Your task to perform on an android device: Do I have any events this weekend? Image 0: 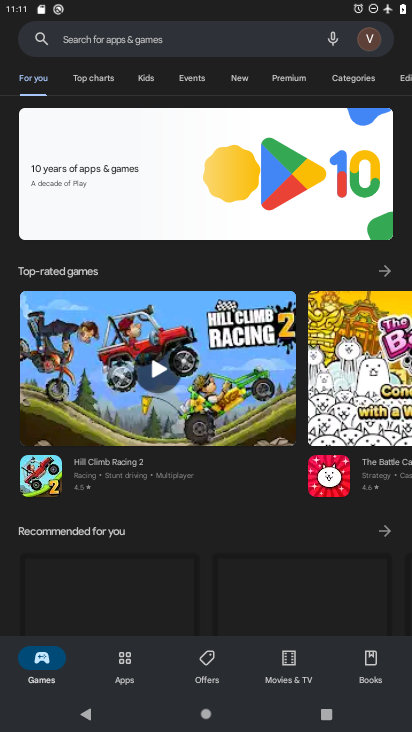
Step 0: press home button
Your task to perform on an android device: Do I have any events this weekend? Image 1: 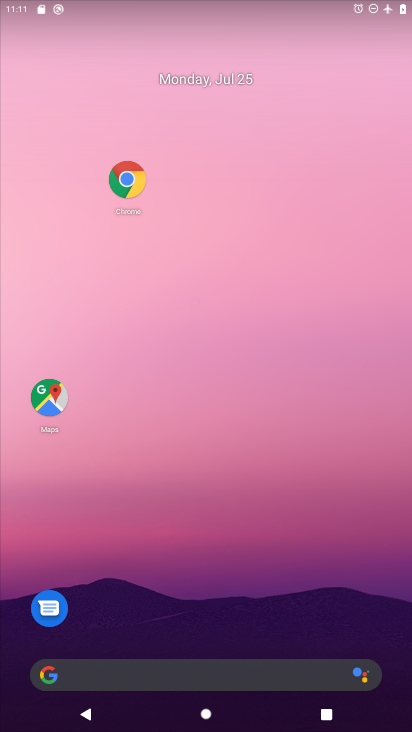
Step 1: drag from (145, 707) to (319, 41)
Your task to perform on an android device: Do I have any events this weekend? Image 2: 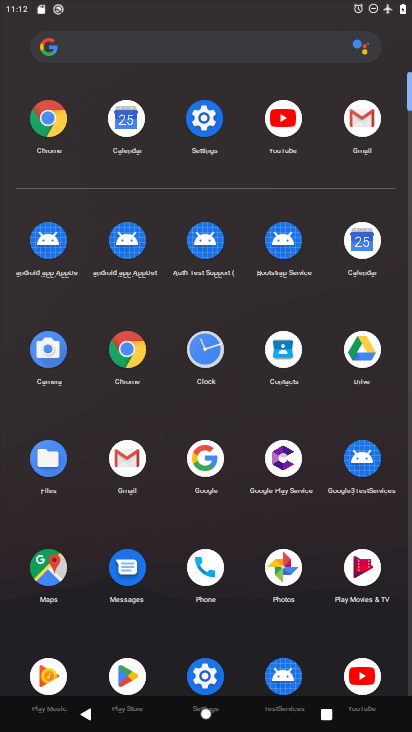
Step 2: click (369, 239)
Your task to perform on an android device: Do I have any events this weekend? Image 3: 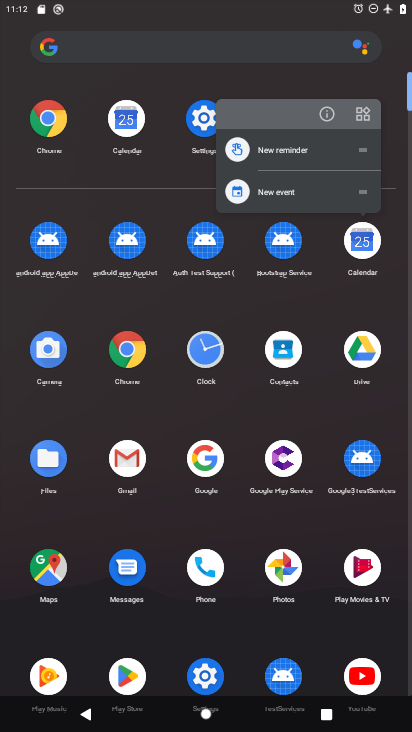
Step 3: click (369, 239)
Your task to perform on an android device: Do I have any events this weekend? Image 4: 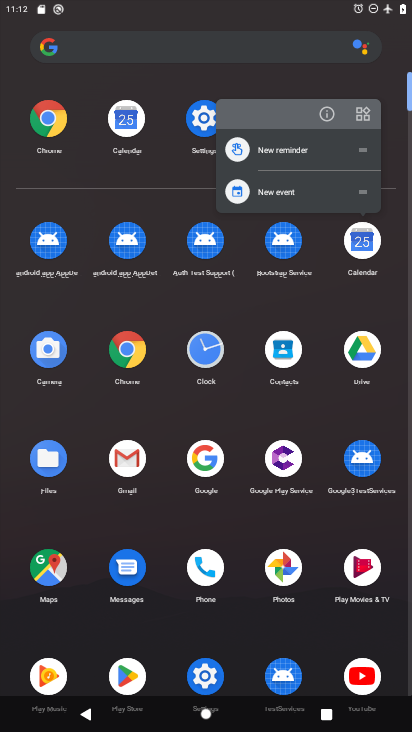
Step 4: click (369, 239)
Your task to perform on an android device: Do I have any events this weekend? Image 5: 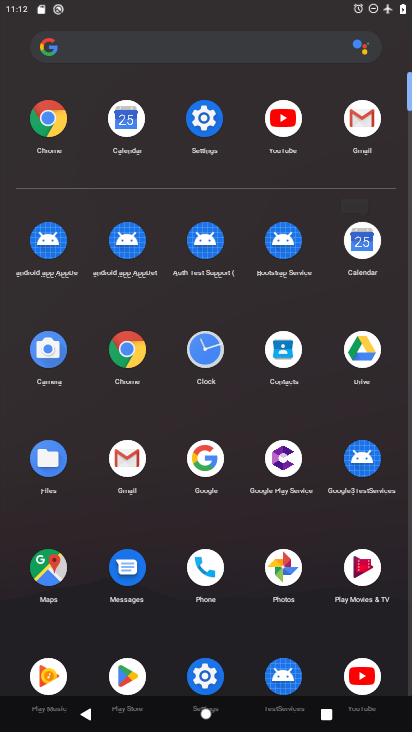
Step 5: click (369, 239)
Your task to perform on an android device: Do I have any events this weekend? Image 6: 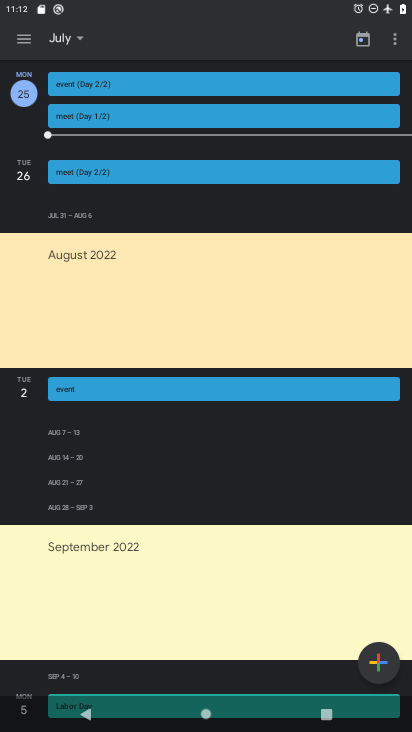
Step 6: click (64, 37)
Your task to perform on an android device: Do I have any events this weekend? Image 7: 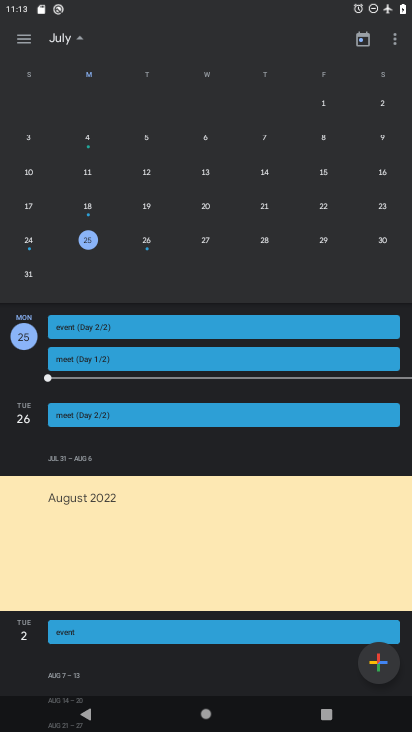
Step 7: task complete